Your task to perform on an android device: What is the news today? Image 0: 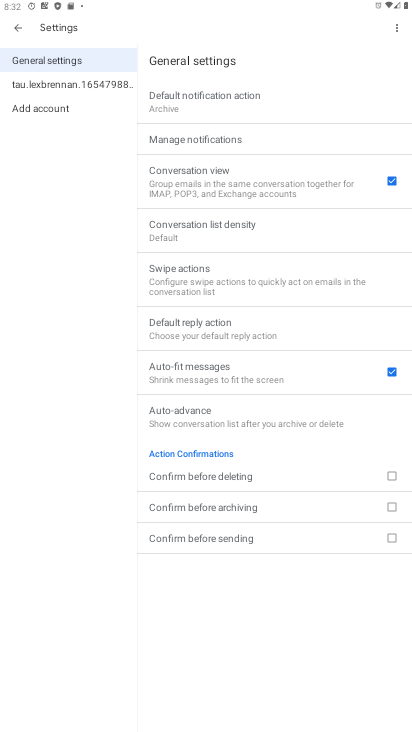
Step 0: press home button
Your task to perform on an android device: What is the news today? Image 1: 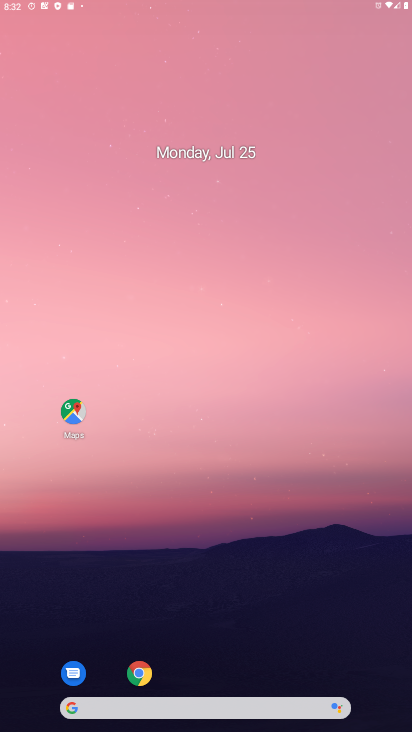
Step 1: drag from (372, 637) to (140, 18)
Your task to perform on an android device: What is the news today? Image 2: 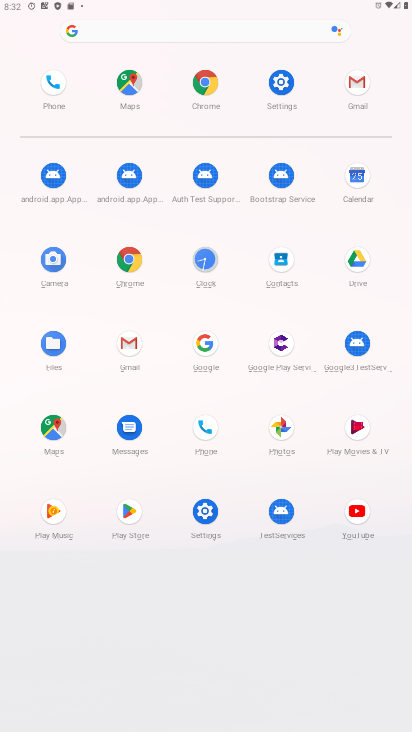
Step 2: click (198, 353)
Your task to perform on an android device: What is the news today? Image 3: 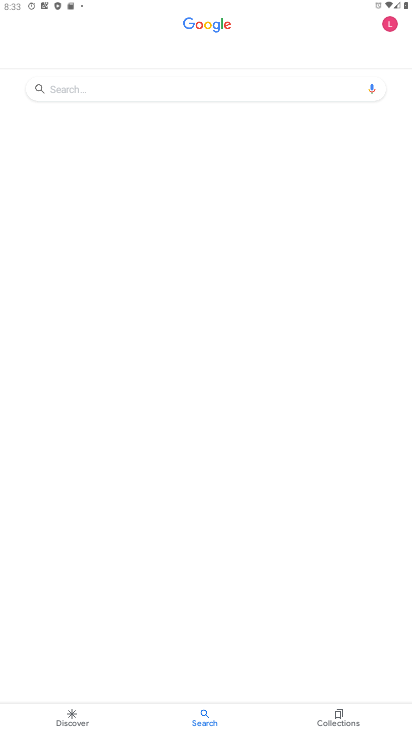
Step 3: click (109, 85)
Your task to perform on an android device: What is the news today? Image 4: 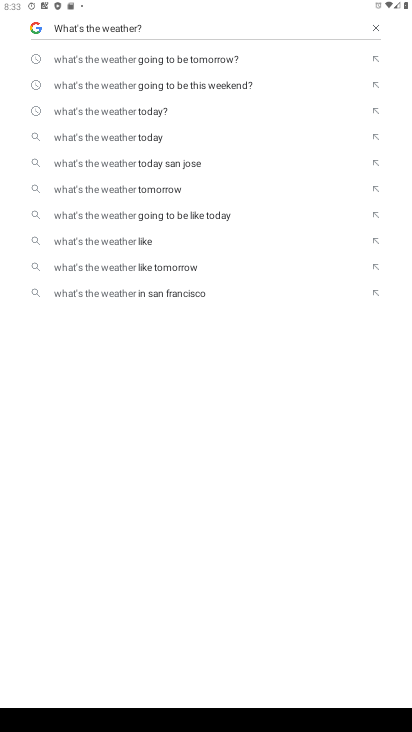
Step 4: click (367, 22)
Your task to perform on an android device: What is the news today? Image 5: 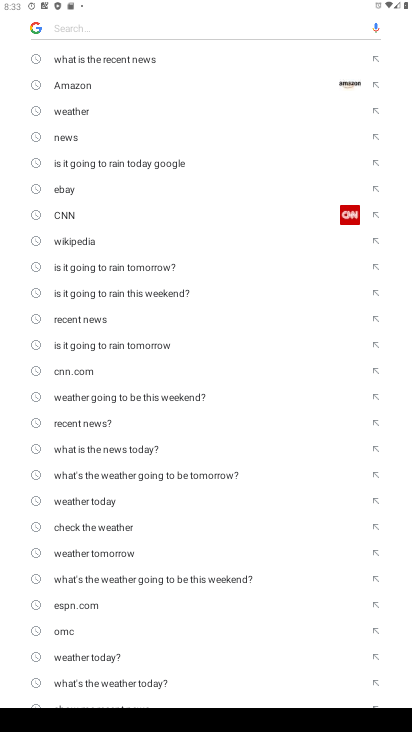
Step 5: click (155, 448)
Your task to perform on an android device: What is the news today? Image 6: 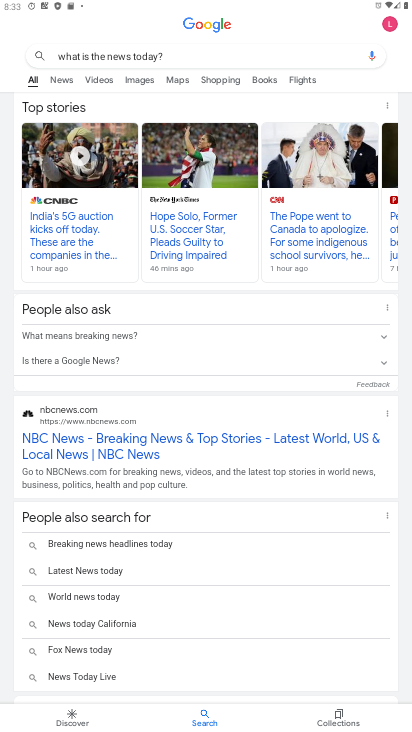
Step 6: task complete